Your task to perform on an android device: delete the emails in spam in the gmail app Image 0: 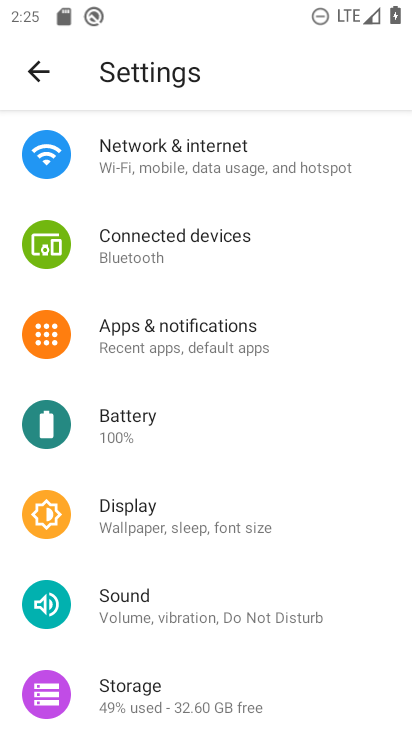
Step 0: press home button
Your task to perform on an android device: delete the emails in spam in the gmail app Image 1: 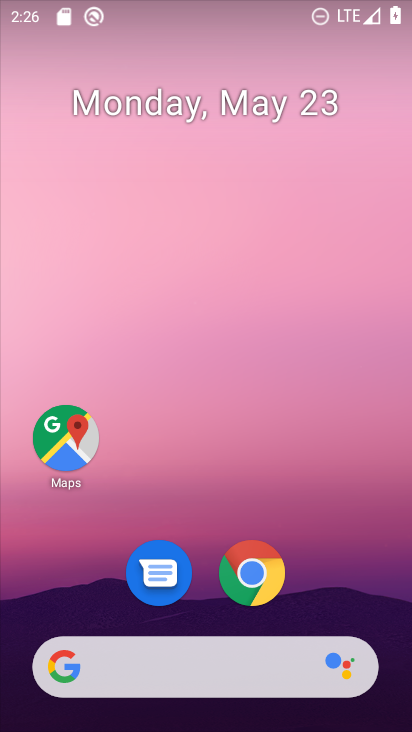
Step 1: drag from (290, 529) to (228, 98)
Your task to perform on an android device: delete the emails in spam in the gmail app Image 2: 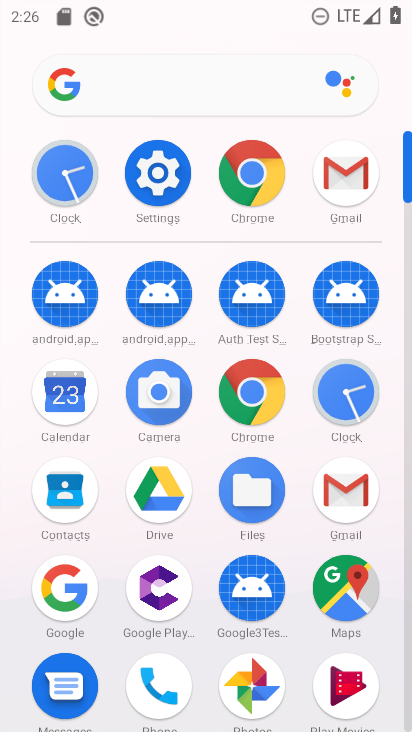
Step 2: click (337, 177)
Your task to perform on an android device: delete the emails in spam in the gmail app Image 3: 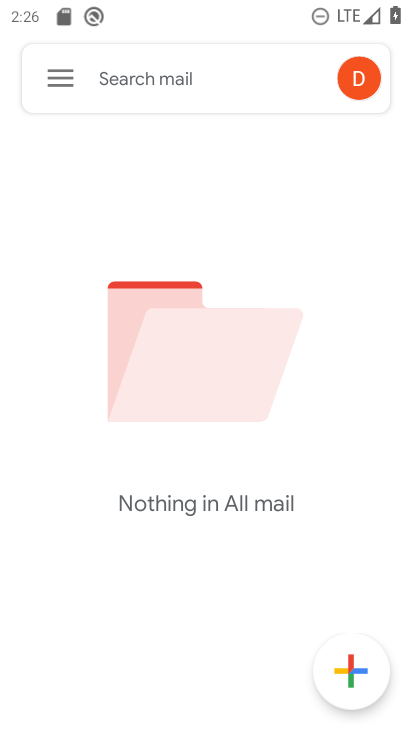
Step 3: click (61, 65)
Your task to perform on an android device: delete the emails in spam in the gmail app Image 4: 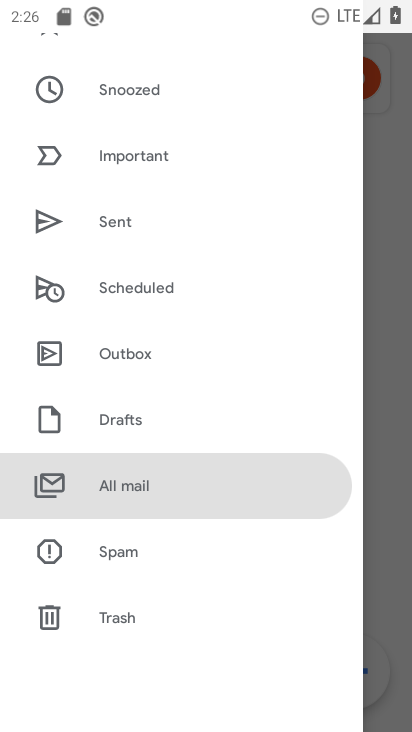
Step 4: click (106, 559)
Your task to perform on an android device: delete the emails in spam in the gmail app Image 5: 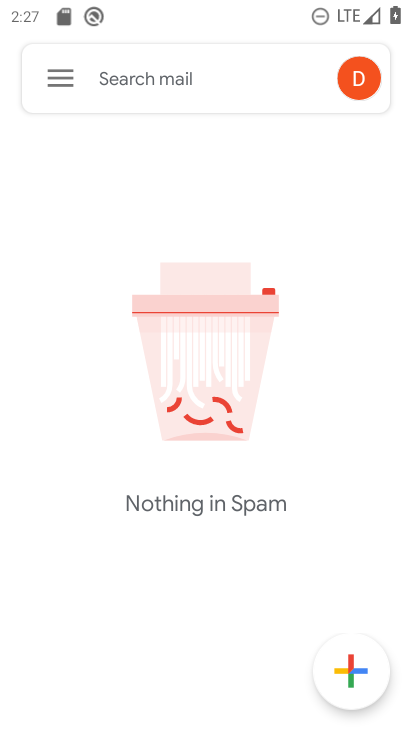
Step 5: task complete